Your task to perform on an android device: turn on airplane mode Image 0: 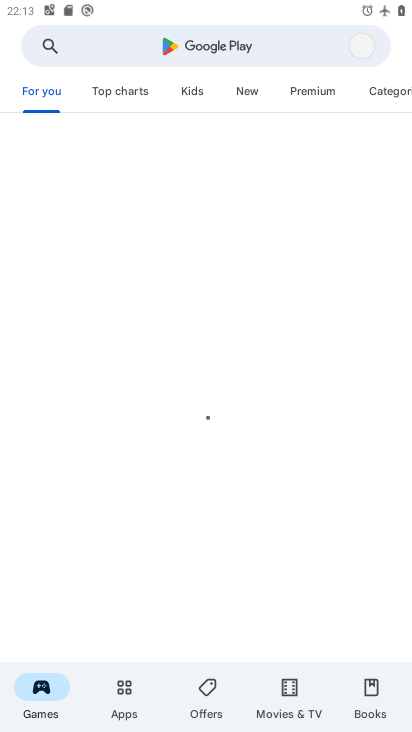
Step 0: press home button
Your task to perform on an android device: turn on airplane mode Image 1: 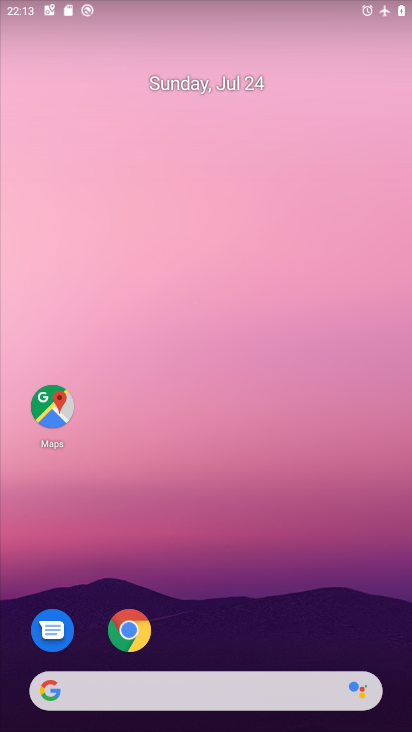
Step 1: drag from (160, 660) to (180, 264)
Your task to perform on an android device: turn on airplane mode Image 2: 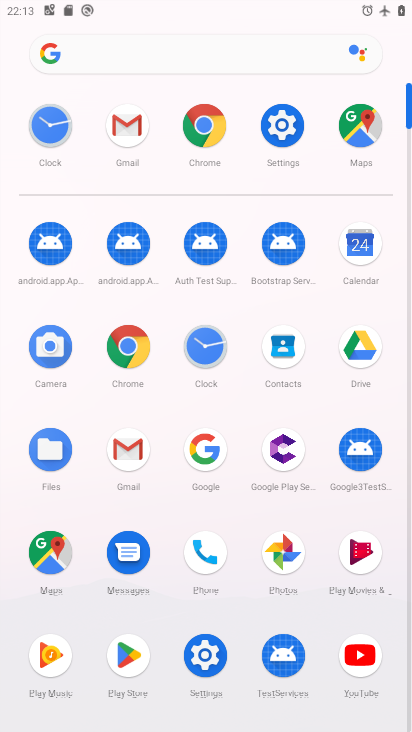
Step 2: click (290, 120)
Your task to perform on an android device: turn on airplane mode Image 3: 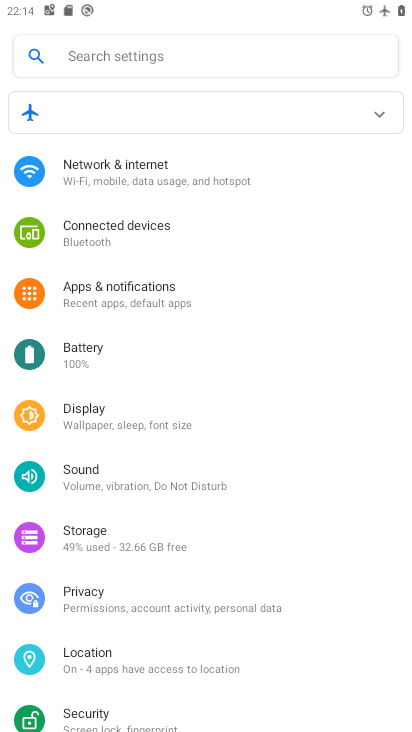
Step 3: click (122, 182)
Your task to perform on an android device: turn on airplane mode Image 4: 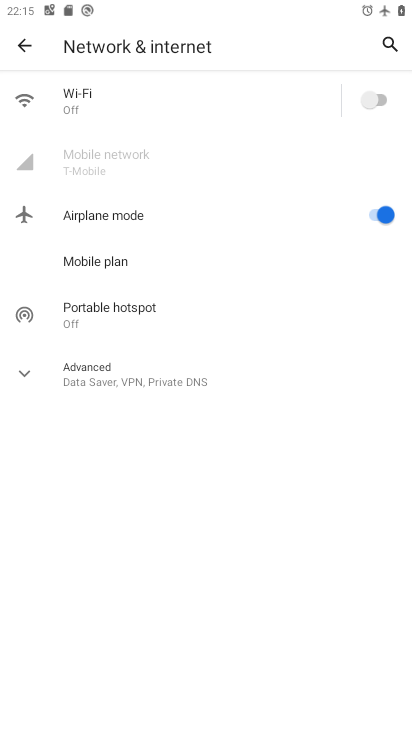
Step 4: task complete